Your task to perform on an android device: Open the calendar app, open the side menu, and click the "Day" option Image 0: 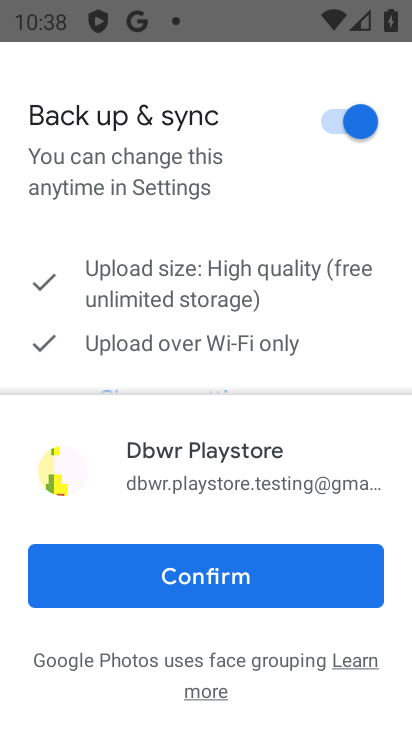
Step 0: press home button
Your task to perform on an android device: Open the calendar app, open the side menu, and click the "Day" option Image 1: 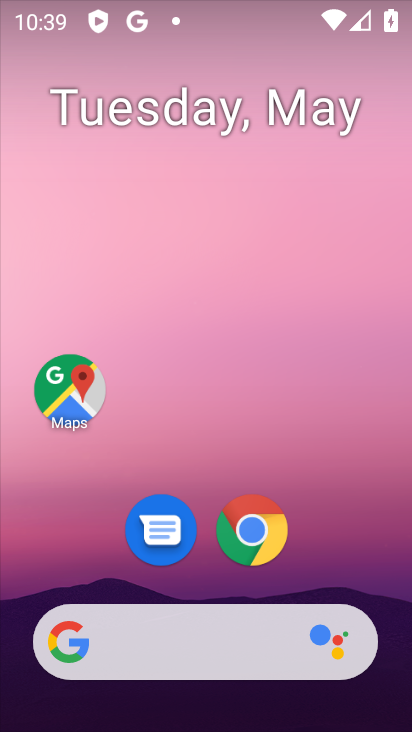
Step 1: drag from (325, 507) to (340, 108)
Your task to perform on an android device: Open the calendar app, open the side menu, and click the "Day" option Image 2: 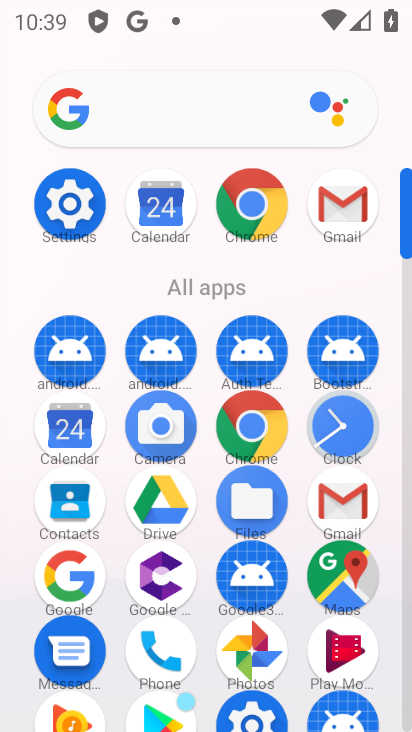
Step 2: click (171, 204)
Your task to perform on an android device: Open the calendar app, open the side menu, and click the "Day" option Image 3: 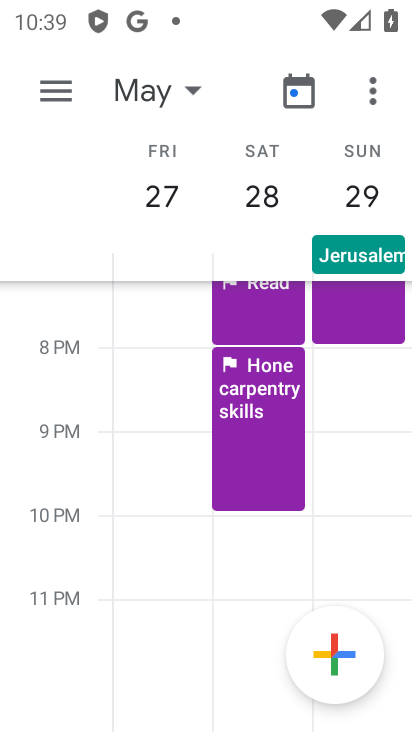
Step 3: click (66, 87)
Your task to perform on an android device: Open the calendar app, open the side menu, and click the "Day" option Image 4: 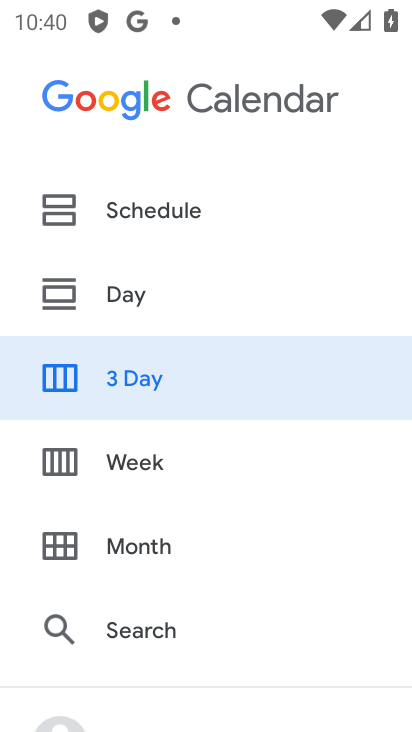
Step 4: click (123, 302)
Your task to perform on an android device: Open the calendar app, open the side menu, and click the "Day" option Image 5: 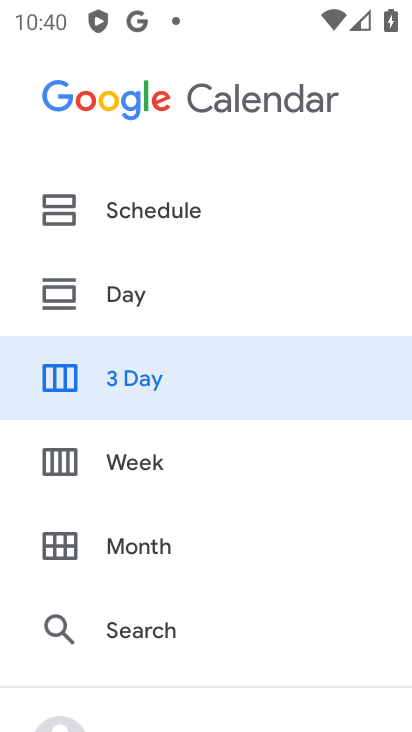
Step 5: click (112, 296)
Your task to perform on an android device: Open the calendar app, open the side menu, and click the "Day" option Image 6: 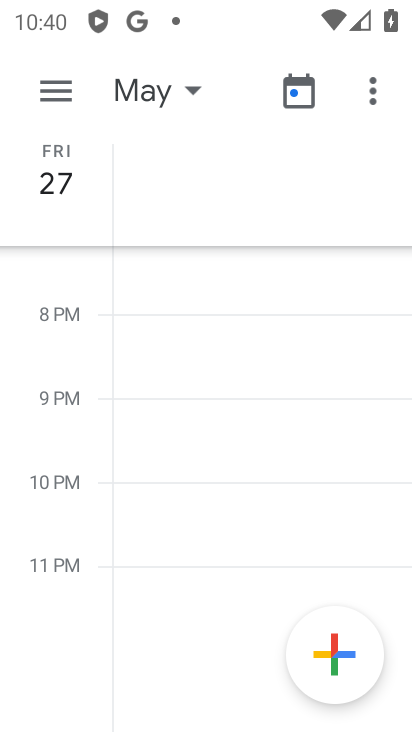
Step 6: task complete